Your task to perform on an android device: turn on wifi Image 0: 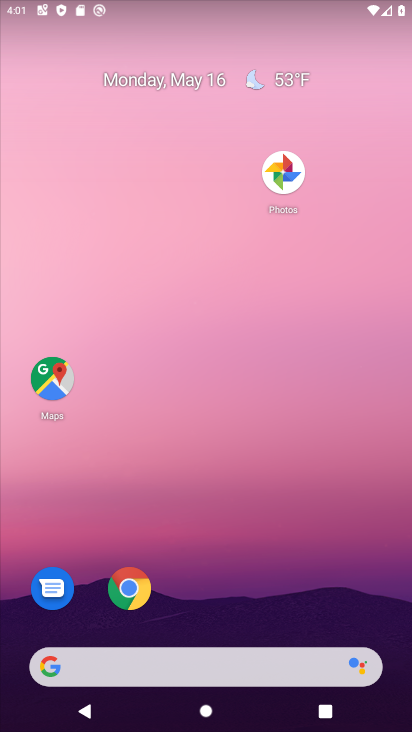
Step 0: drag from (251, 663) to (249, 719)
Your task to perform on an android device: turn on wifi Image 1: 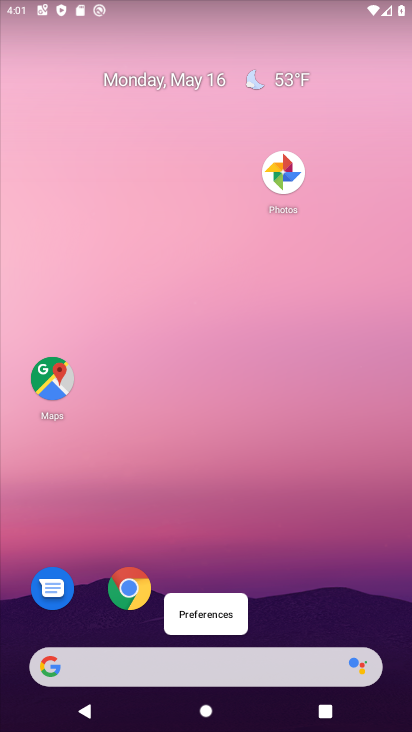
Step 1: task complete